Your task to perform on an android device: turn notification dots off Image 0: 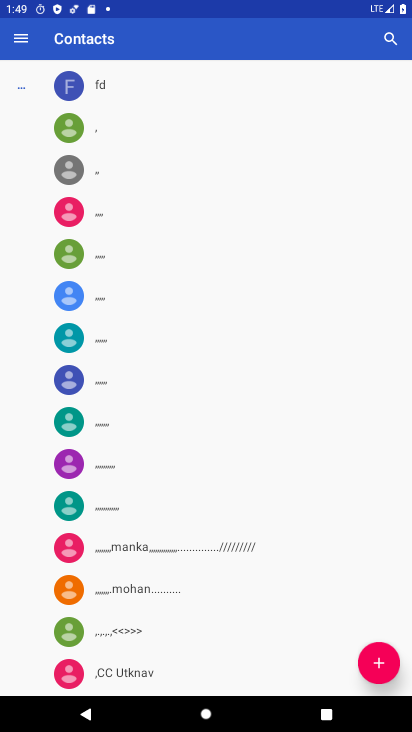
Step 0: press back button
Your task to perform on an android device: turn notification dots off Image 1: 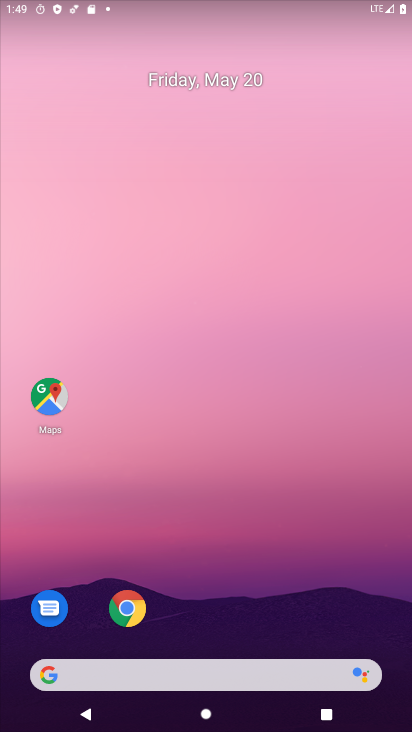
Step 1: drag from (236, 593) to (247, 180)
Your task to perform on an android device: turn notification dots off Image 2: 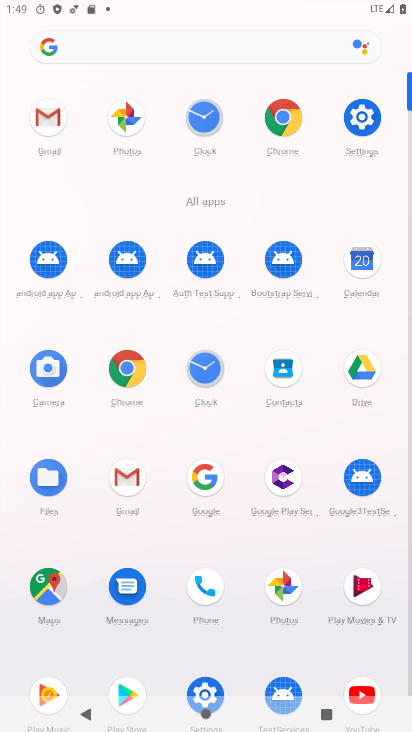
Step 2: click (361, 117)
Your task to perform on an android device: turn notification dots off Image 3: 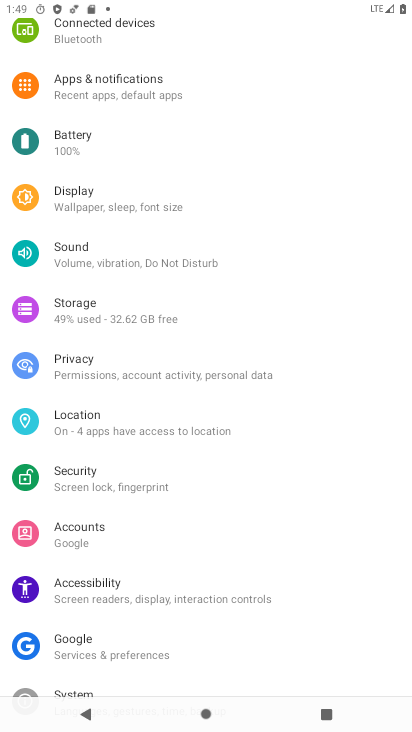
Step 3: click (110, 81)
Your task to perform on an android device: turn notification dots off Image 4: 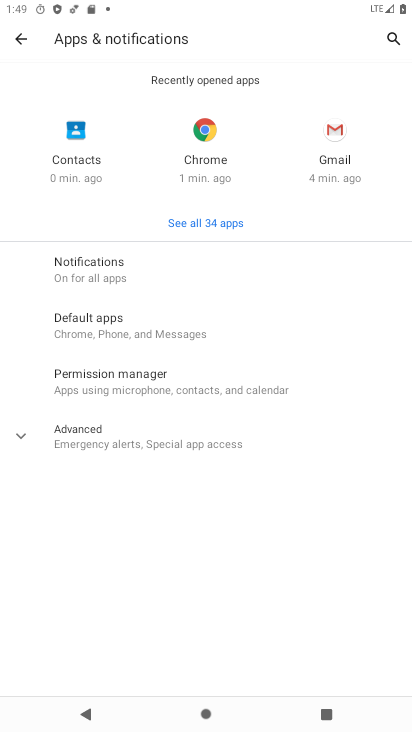
Step 4: click (92, 264)
Your task to perform on an android device: turn notification dots off Image 5: 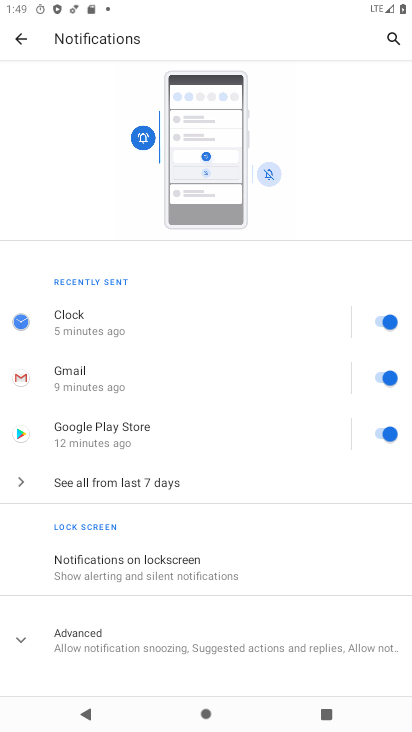
Step 5: click (74, 631)
Your task to perform on an android device: turn notification dots off Image 6: 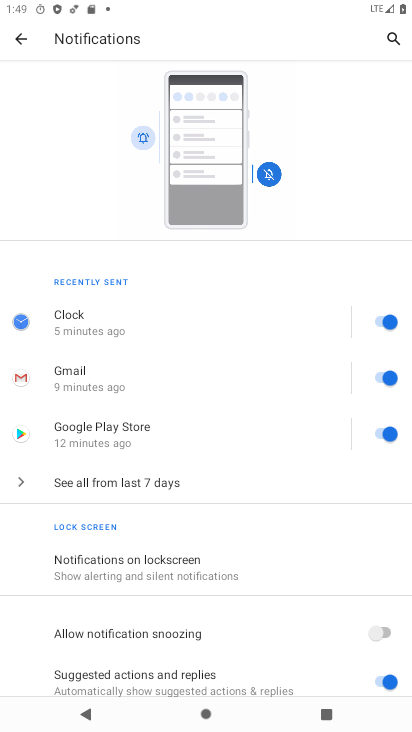
Step 6: task complete